Your task to perform on an android device: empty trash in the gmail app Image 0: 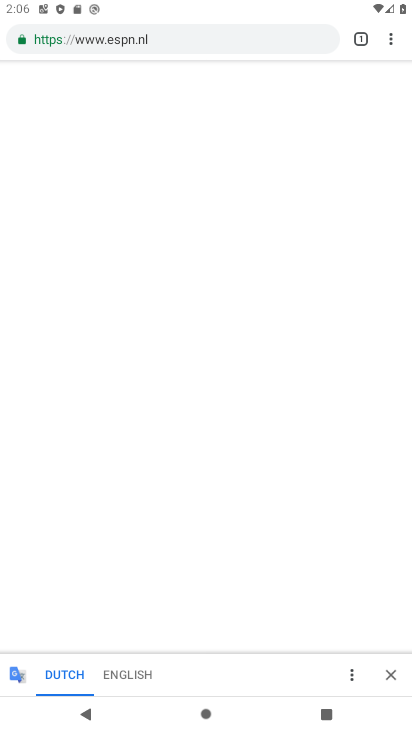
Step 0: press home button
Your task to perform on an android device: empty trash in the gmail app Image 1: 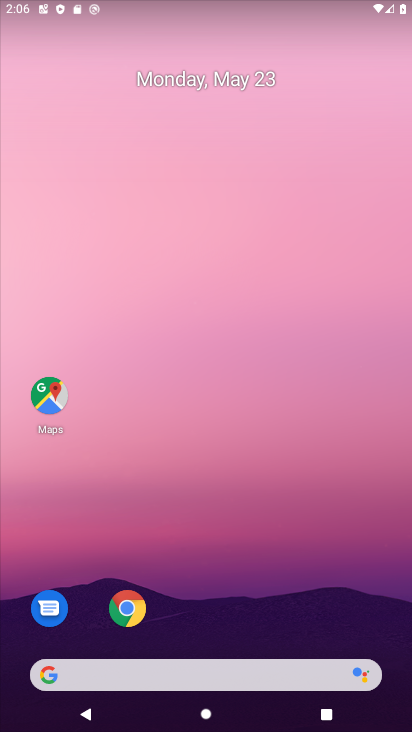
Step 1: drag from (172, 674) to (116, 9)
Your task to perform on an android device: empty trash in the gmail app Image 2: 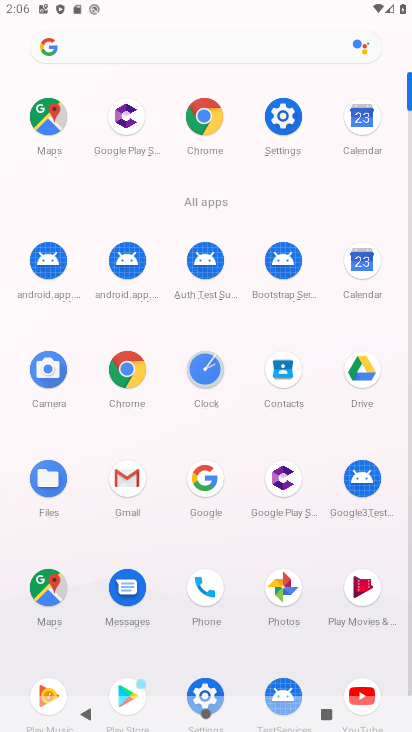
Step 2: click (135, 483)
Your task to perform on an android device: empty trash in the gmail app Image 3: 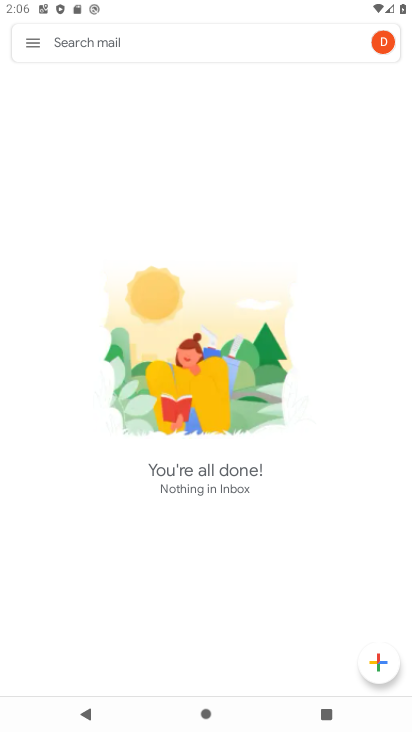
Step 3: click (28, 37)
Your task to perform on an android device: empty trash in the gmail app Image 4: 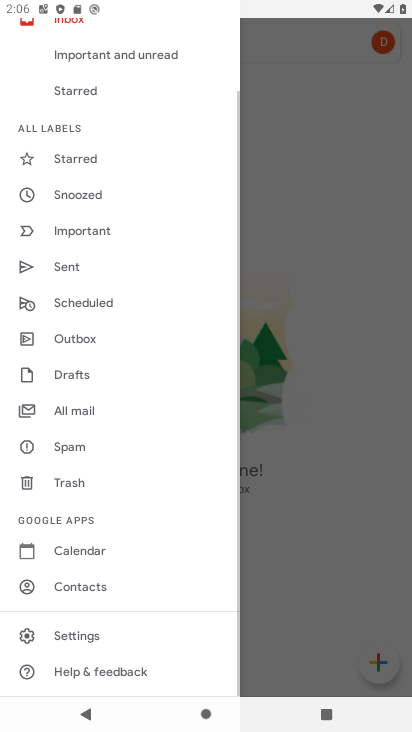
Step 4: click (86, 476)
Your task to perform on an android device: empty trash in the gmail app Image 5: 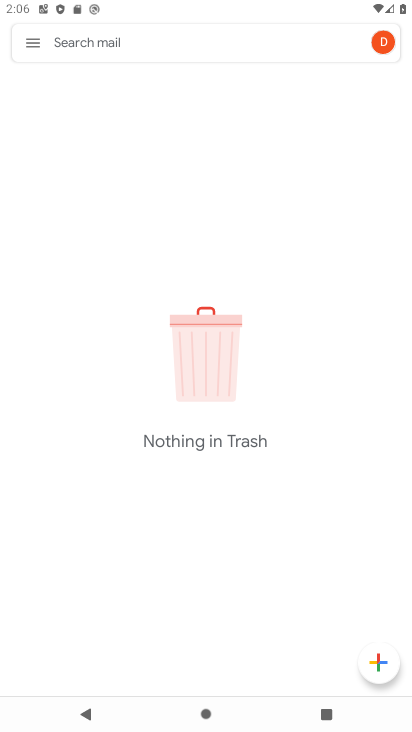
Step 5: task complete